Your task to perform on an android device: Is it going to rain today? Image 0: 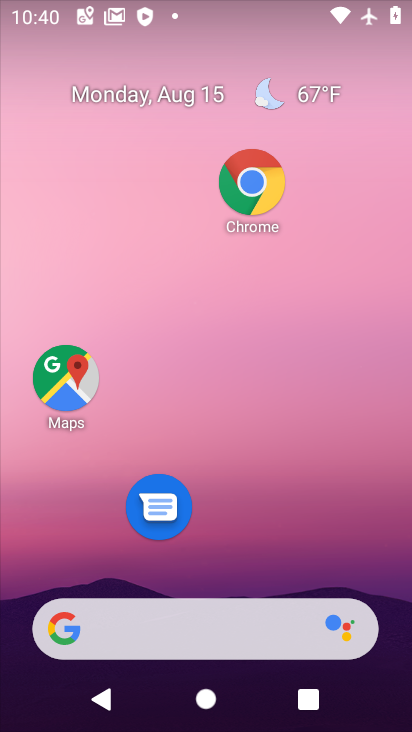
Step 0: click (216, 620)
Your task to perform on an android device: Is it going to rain today? Image 1: 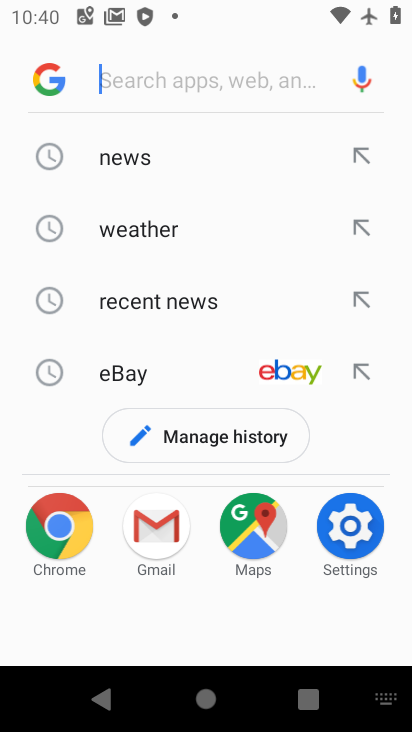
Step 1: click (150, 222)
Your task to perform on an android device: Is it going to rain today? Image 2: 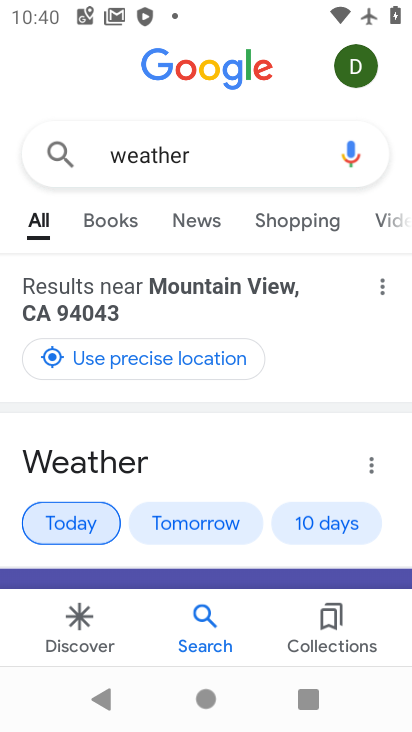
Step 2: task complete